Your task to perform on an android device: Show me the alarms in the clock app Image 0: 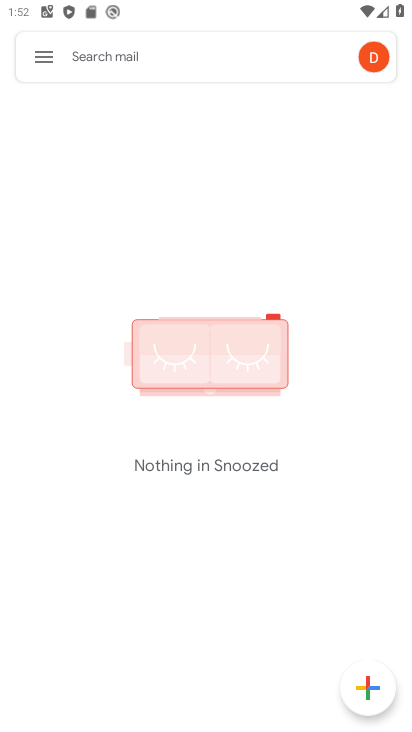
Step 0: press home button
Your task to perform on an android device: Show me the alarms in the clock app Image 1: 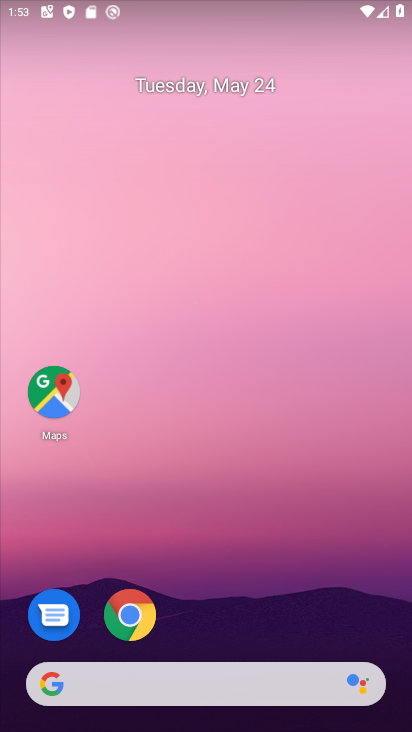
Step 1: drag from (223, 633) to (269, 18)
Your task to perform on an android device: Show me the alarms in the clock app Image 2: 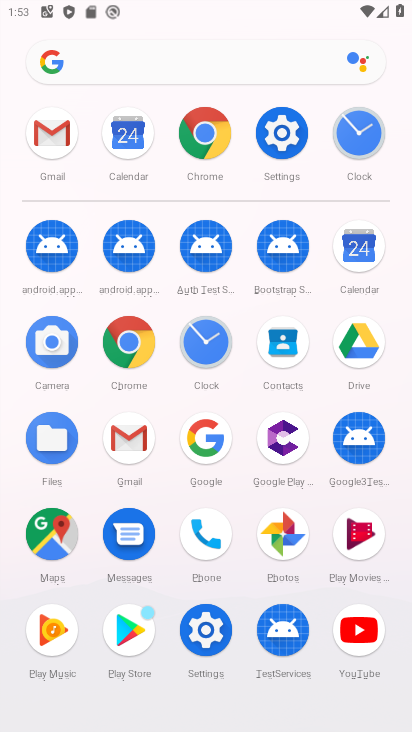
Step 2: click (357, 127)
Your task to perform on an android device: Show me the alarms in the clock app Image 3: 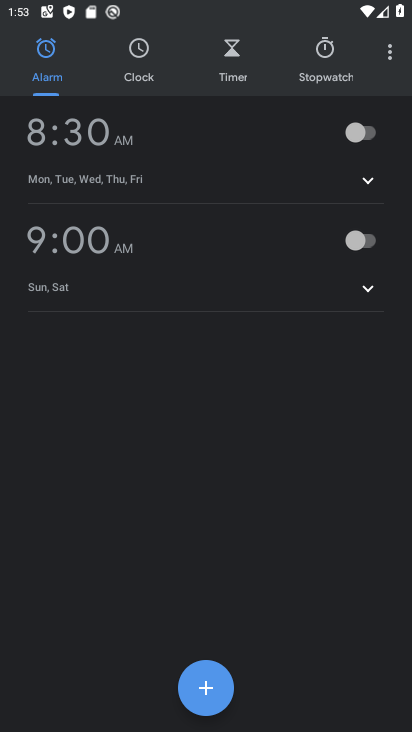
Step 3: task complete